Your task to perform on an android device: turn on priority inbox in the gmail app Image 0: 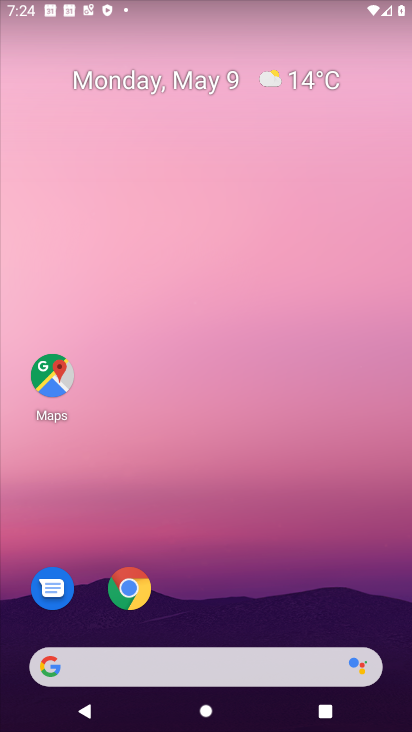
Step 0: drag from (348, 613) to (246, 27)
Your task to perform on an android device: turn on priority inbox in the gmail app Image 1: 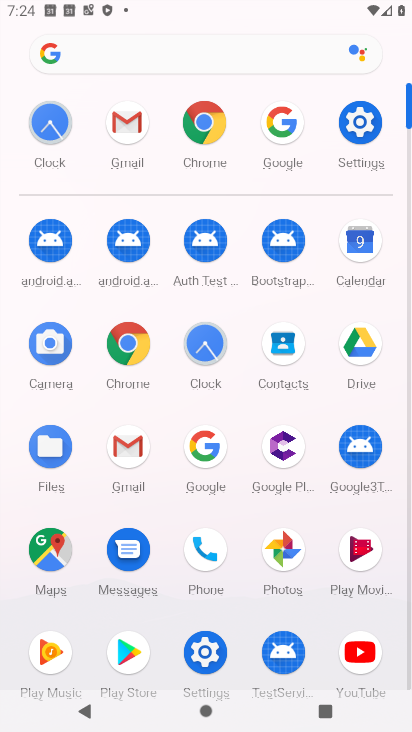
Step 1: click (126, 432)
Your task to perform on an android device: turn on priority inbox in the gmail app Image 2: 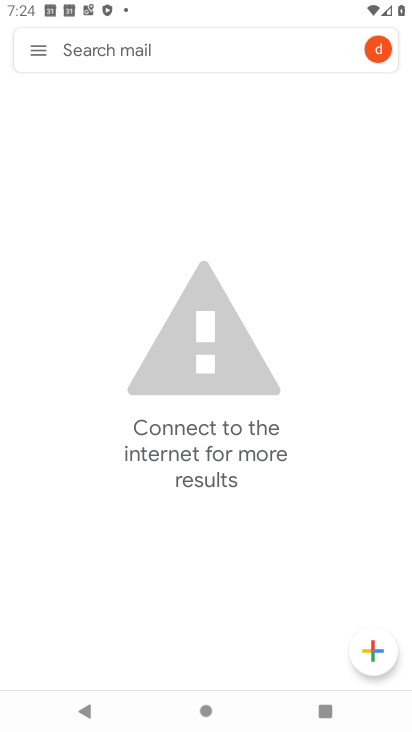
Step 2: click (26, 54)
Your task to perform on an android device: turn on priority inbox in the gmail app Image 3: 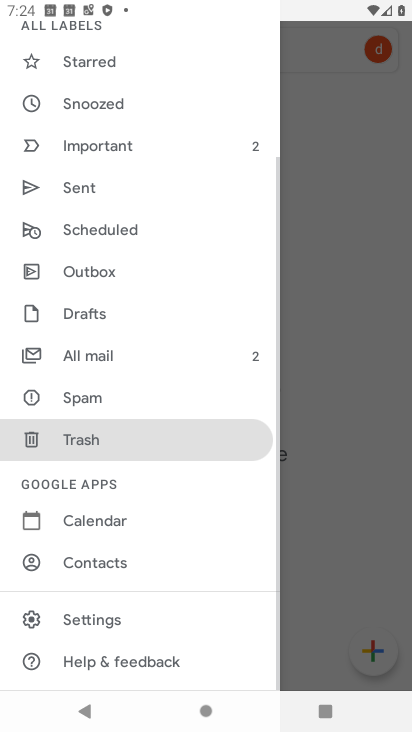
Step 3: click (115, 625)
Your task to perform on an android device: turn on priority inbox in the gmail app Image 4: 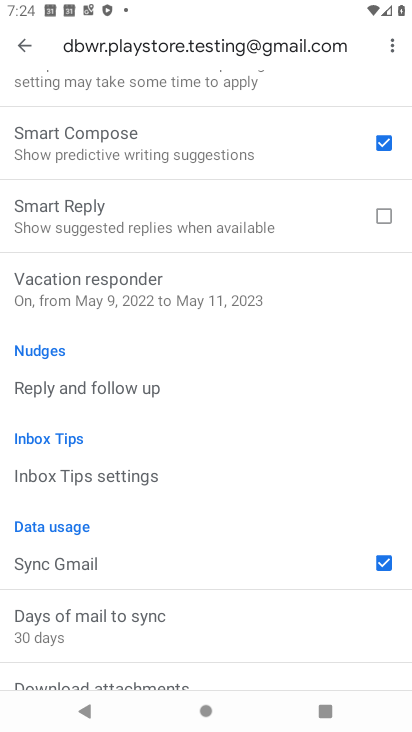
Step 4: drag from (178, 124) to (229, 699)
Your task to perform on an android device: turn on priority inbox in the gmail app Image 5: 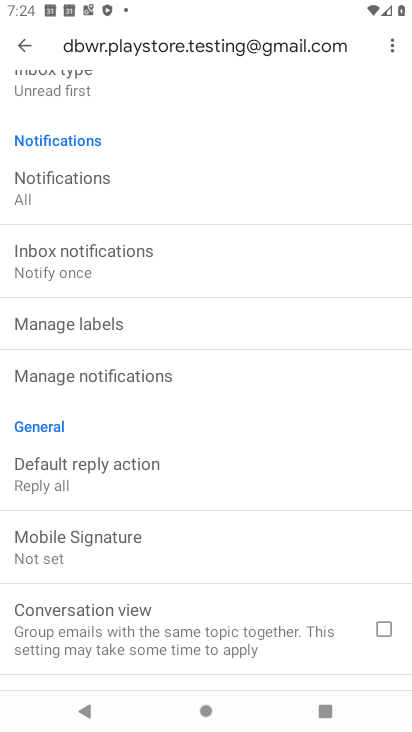
Step 5: drag from (149, 154) to (193, 608)
Your task to perform on an android device: turn on priority inbox in the gmail app Image 6: 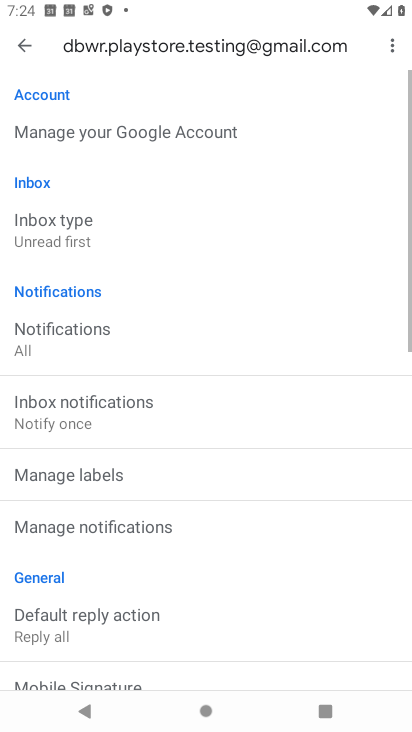
Step 6: click (66, 338)
Your task to perform on an android device: turn on priority inbox in the gmail app Image 7: 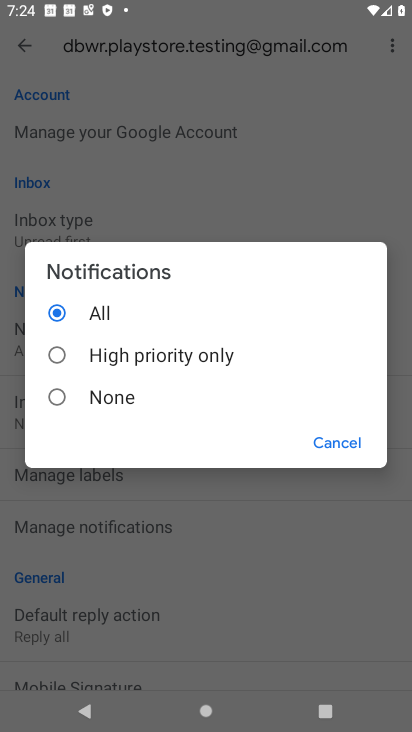
Step 7: click (319, 434)
Your task to perform on an android device: turn on priority inbox in the gmail app Image 8: 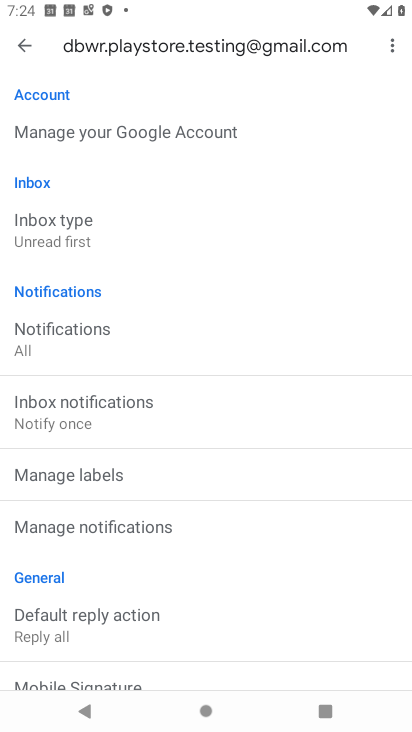
Step 8: click (70, 235)
Your task to perform on an android device: turn on priority inbox in the gmail app Image 9: 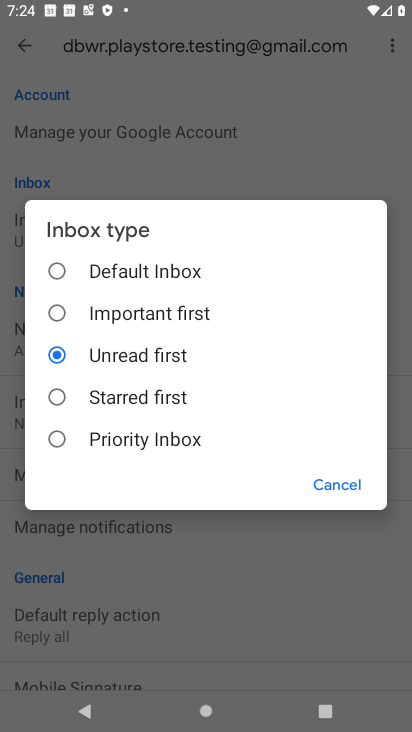
Step 9: click (98, 437)
Your task to perform on an android device: turn on priority inbox in the gmail app Image 10: 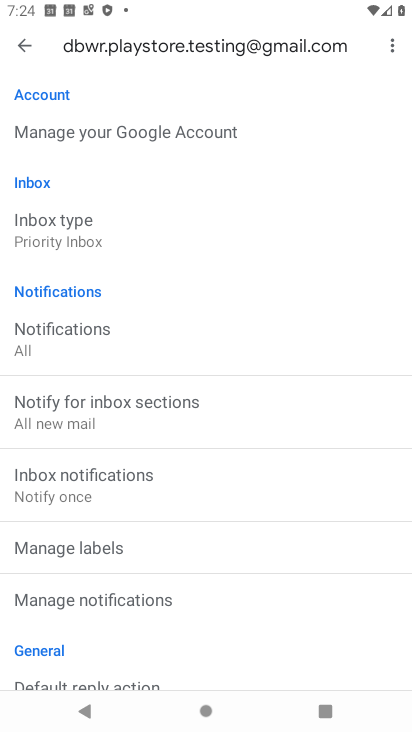
Step 10: task complete